Your task to perform on an android device: set the stopwatch Image 0: 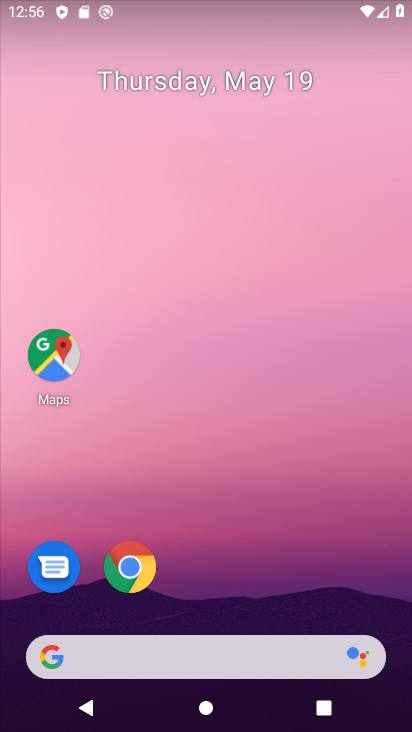
Step 0: press home button
Your task to perform on an android device: set the stopwatch Image 1: 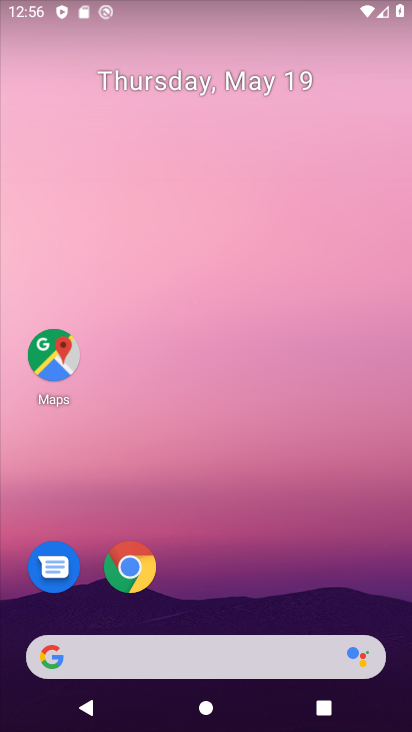
Step 1: drag from (187, 649) to (306, 249)
Your task to perform on an android device: set the stopwatch Image 2: 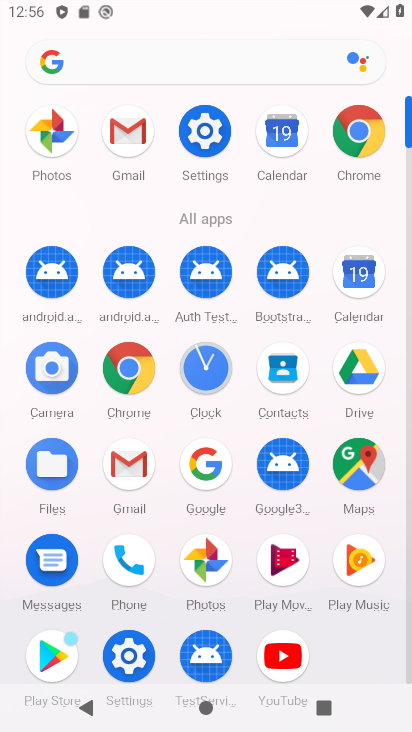
Step 2: click (205, 377)
Your task to perform on an android device: set the stopwatch Image 3: 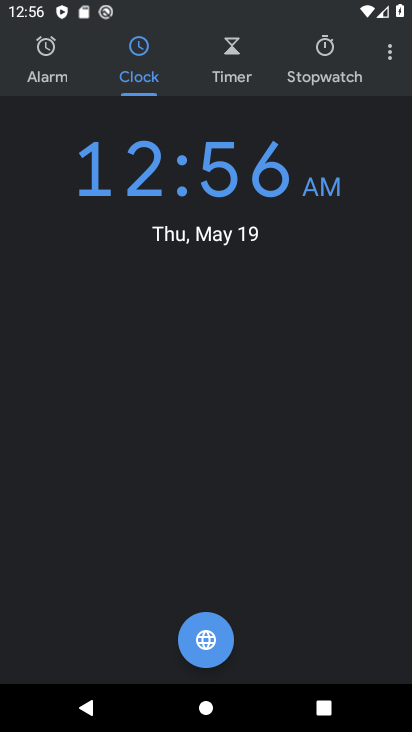
Step 3: click (324, 73)
Your task to perform on an android device: set the stopwatch Image 4: 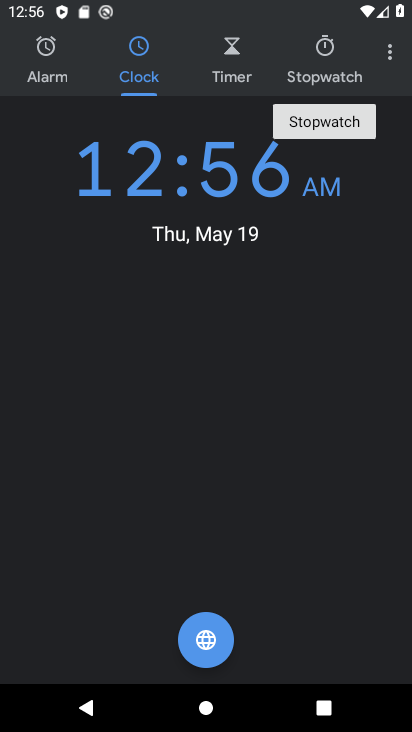
Step 4: click (329, 66)
Your task to perform on an android device: set the stopwatch Image 5: 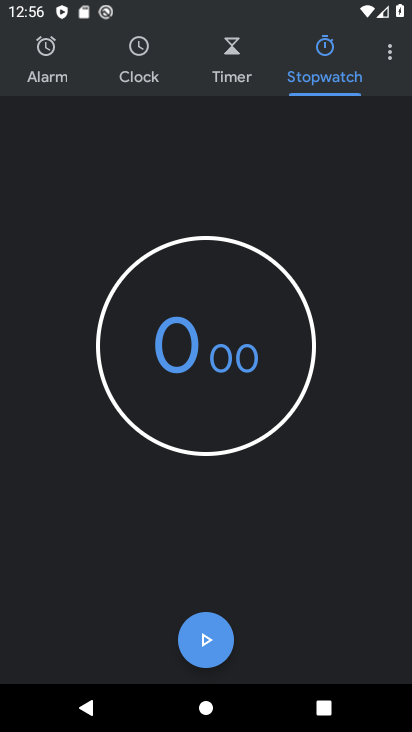
Step 5: click (206, 373)
Your task to perform on an android device: set the stopwatch Image 6: 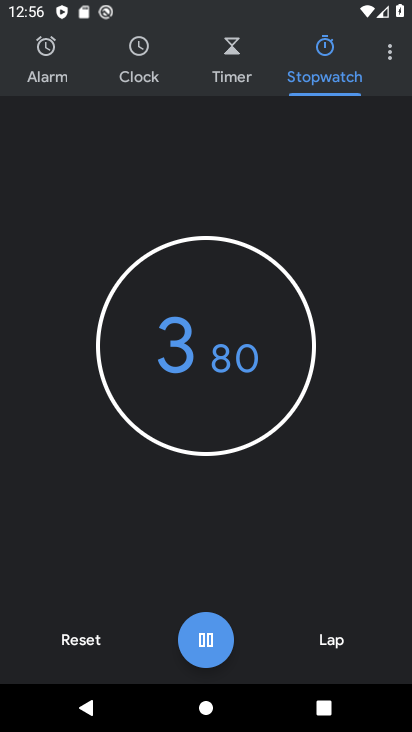
Step 6: click (207, 642)
Your task to perform on an android device: set the stopwatch Image 7: 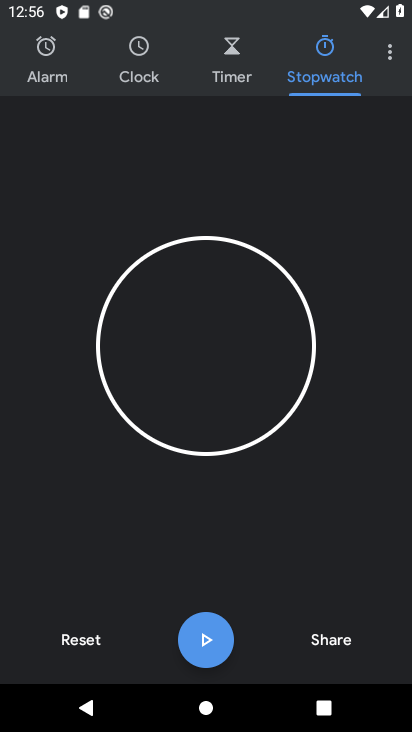
Step 7: task complete